Your task to perform on an android device: turn on wifi Image 0: 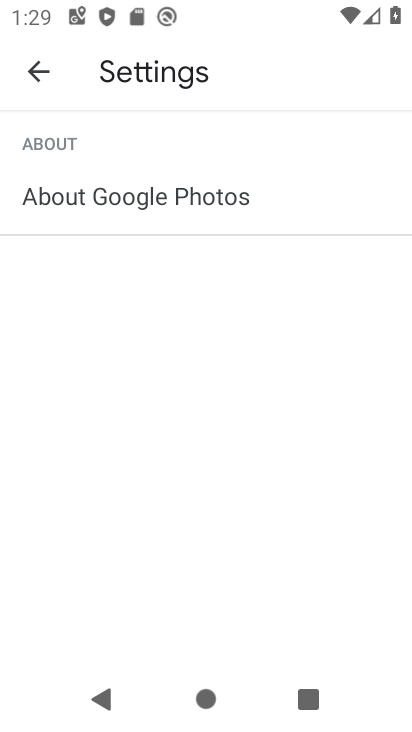
Step 0: press home button
Your task to perform on an android device: turn on wifi Image 1: 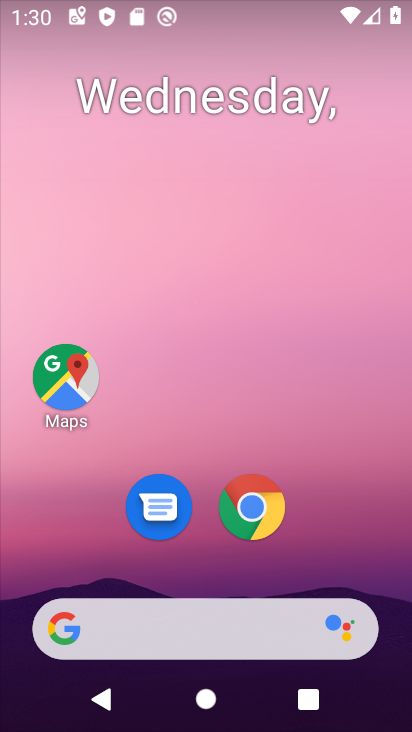
Step 1: drag from (352, 531) to (354, 188)
Your task to perform on an android device: turn on wifi Image 2: 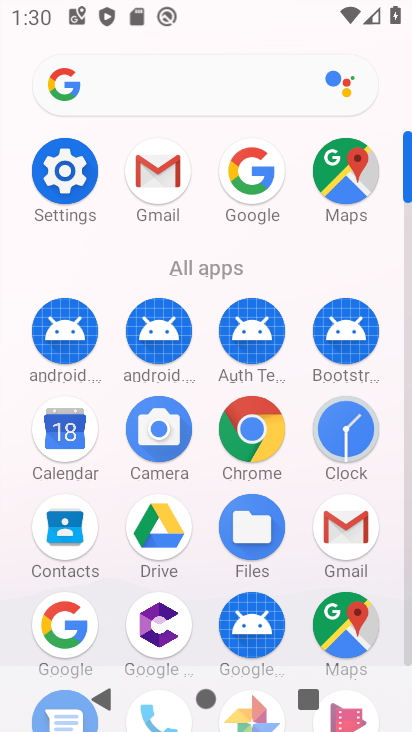
Step 2: click (48, 181)
Your task to perform on an android device: turn on wifi Image 3: 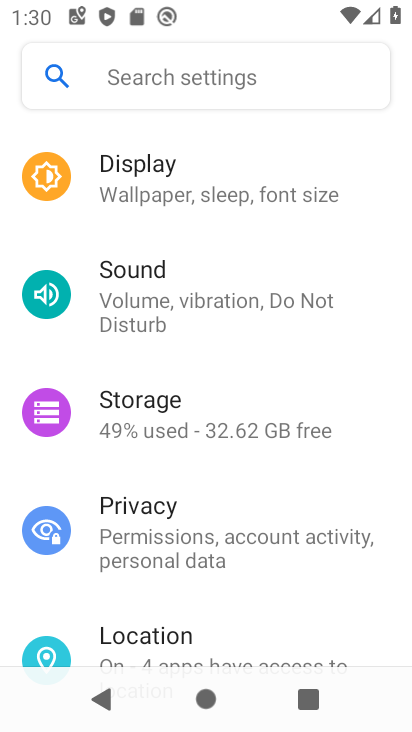
Step 3: drag from (191, 232) to (213, 569)
Your task to perform on an android device: turn on wifi Image 4: 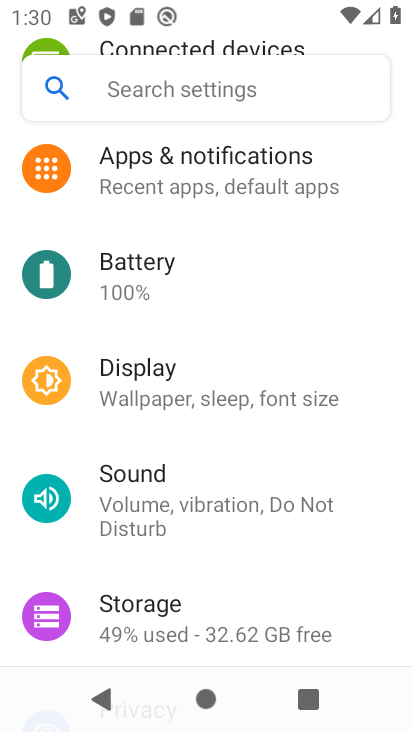
Step 4: drag from (214, 166) to (217, 472)
Your task to perform on an android device: turn on wifi Image 5: 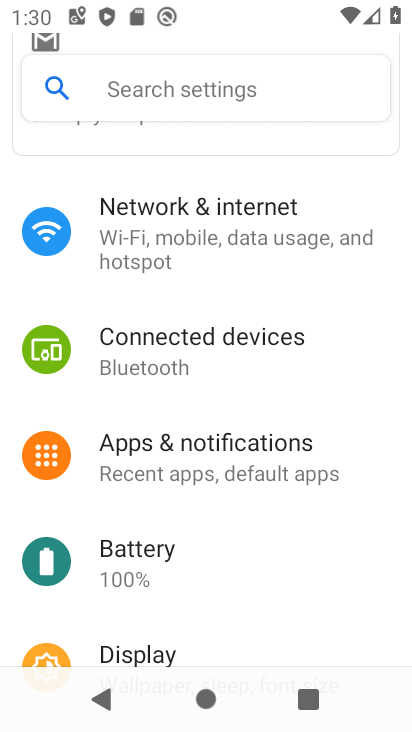
Step 5: click (214, 219)
Your task to perform on an android device: turn on wifi Image 6: 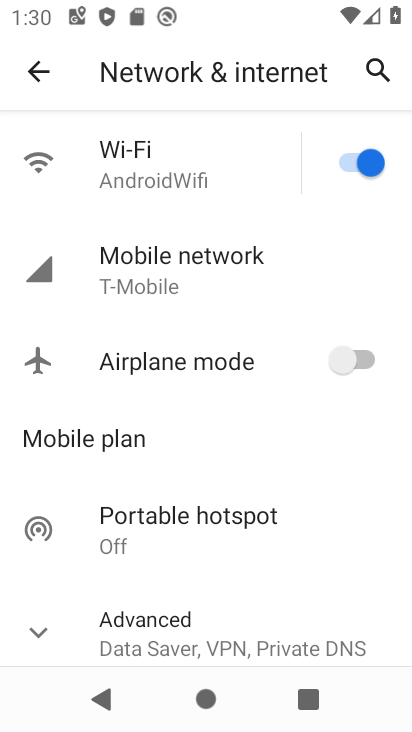
Step 6: task complete